Your task to perform on an android device: See recent photos Image 0: 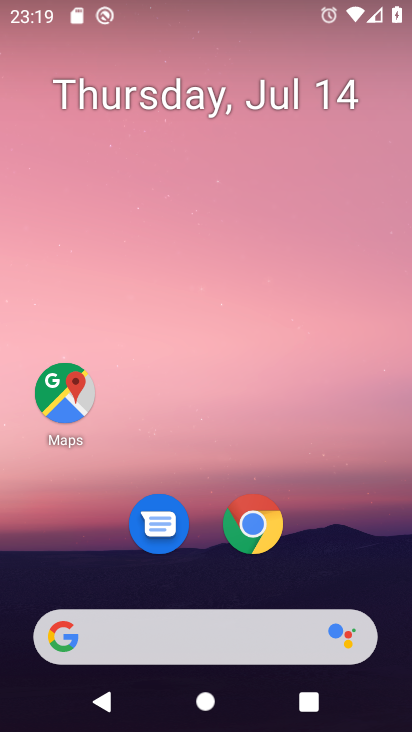
Step 0: drag from (285, 549) to (322, 47)
Your task to perform on an android device: See recent photos Image 1: 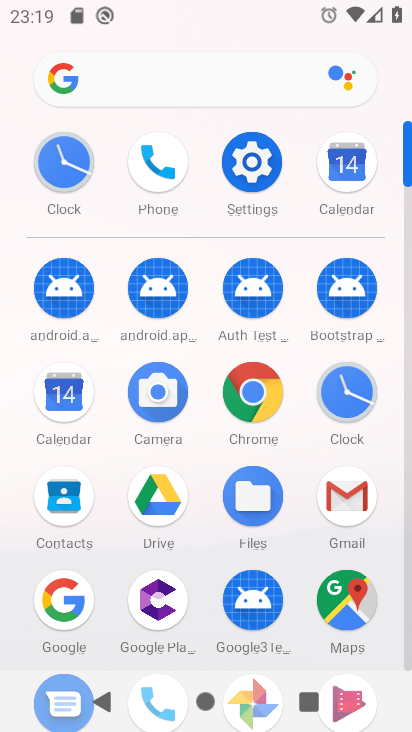
Step 1: drag from (281, 460) to (298, 268)
Your task to perform on an android device: See recent photos Image 2: 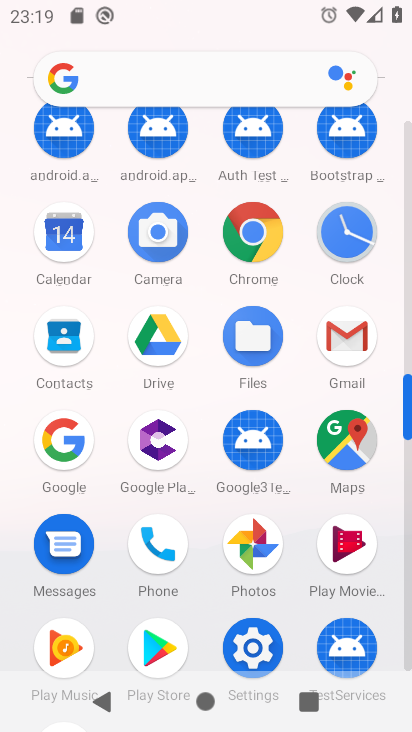
Step 2: click (270, 543)
Your task to perform on an android device: See recent photos Image 3: 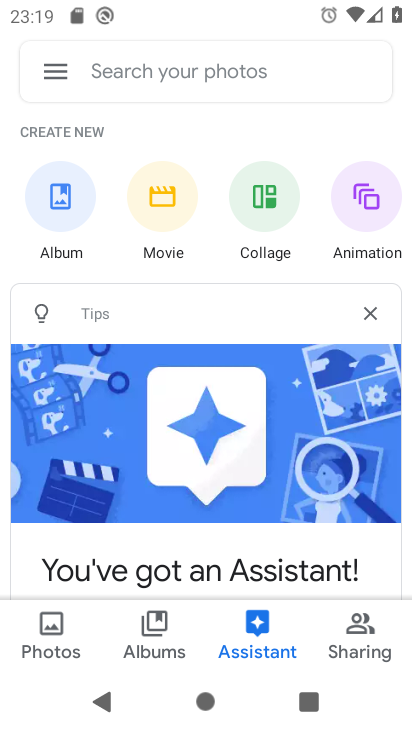
Step 3: click (54, 635)
Your task to perform on an android device: See recent photos Image 4: 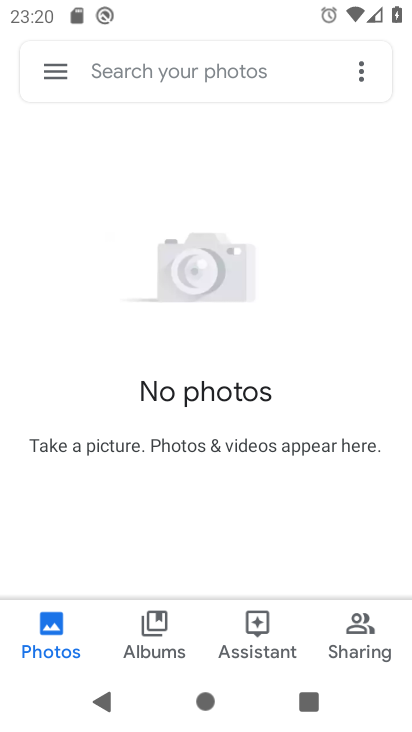
Step 4: task complete